Your task to perform on an android device: toggle translation in the chrome app Image 0: 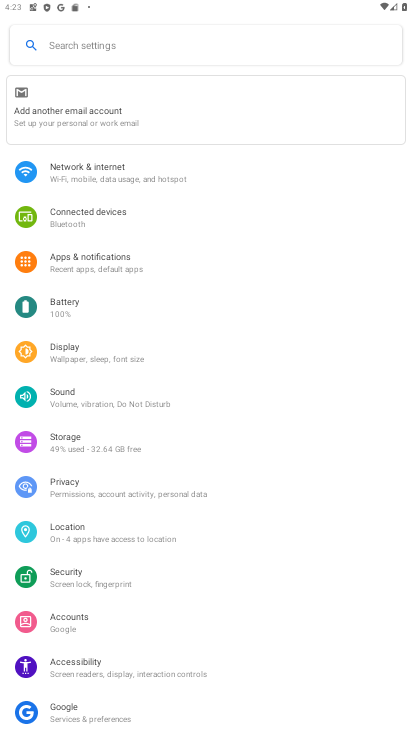
Step 0: press home button
Your task to perform on an android device: toggle translation in the chrome app Image 1: 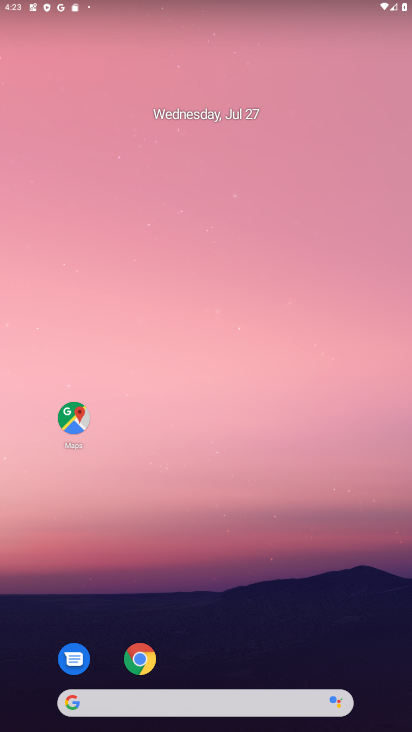
Step 1: click (143, 656)
Your task to perform on an android device: toggle translation in the chrome app Image 2: 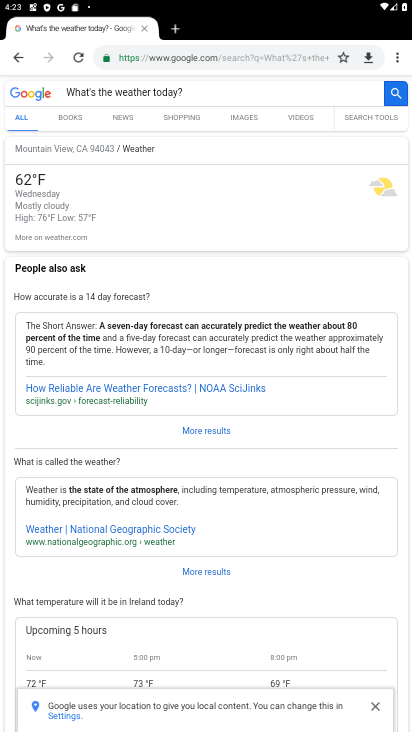
Step 2: click (400, 58)
Your task to perform on an android device: toggle translation in the chrome app Image 3: 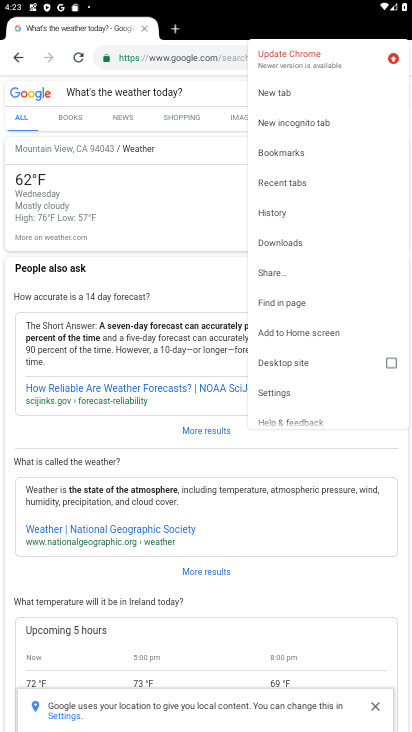
Step 3: click (312, 398)
Your task to perform on an android device: toggle translation in the chrome app Image 4: 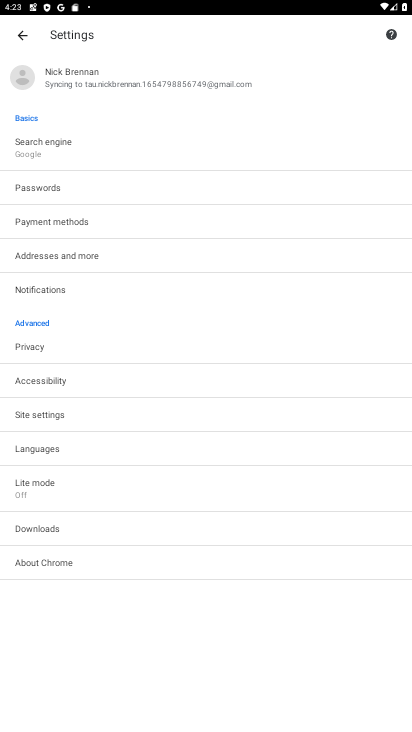
Step 4: click (130, 444)
Your task to perform on an android device: toggle translation in the chrome app Image 5: 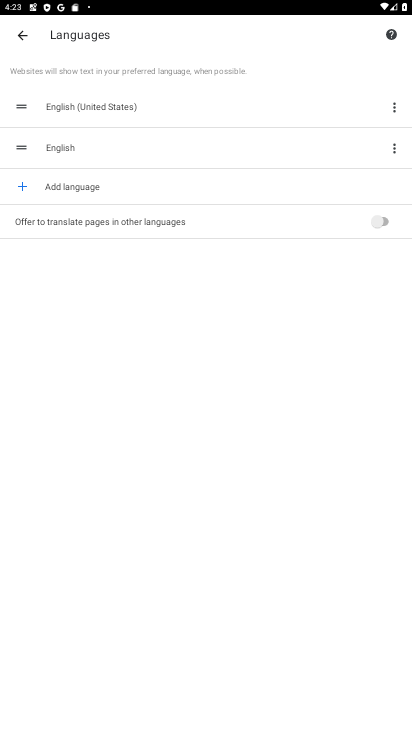
Step 5: click (371, 247)
Your task to perform on an android device: toggle translation in the chrome app Image 6: 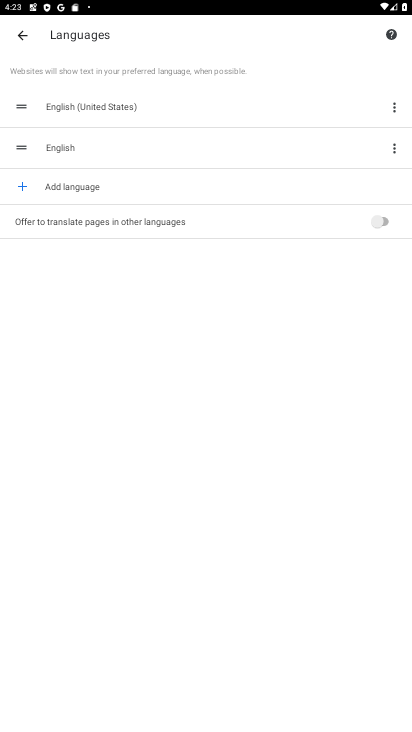
Step 6: click (385, 231)
Your task to perform on an android device: toggle translation in the chrome app Image 7: 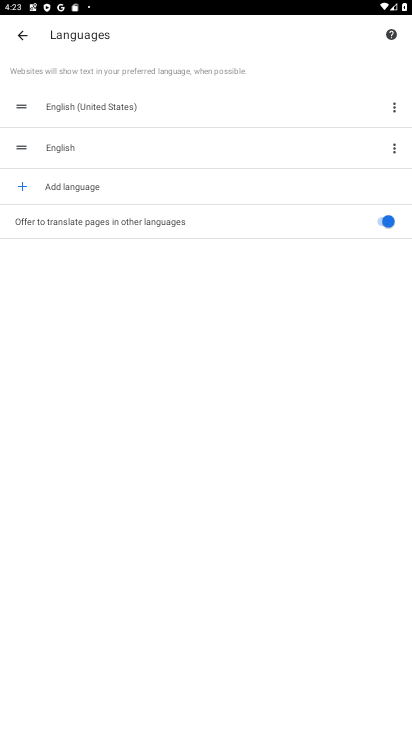
Step 7: task complete